Your task to perform on an android device: Search for hotels in New York Image 0: 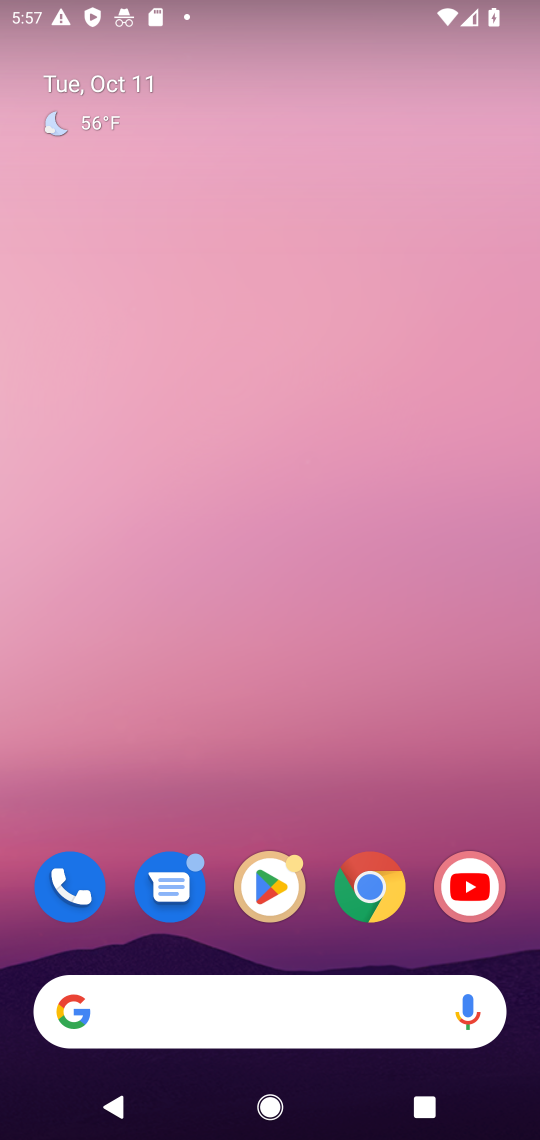
Step 0: click (271, 1004)
Your task to perform on an android device: Search for hotels in New York Image 1: 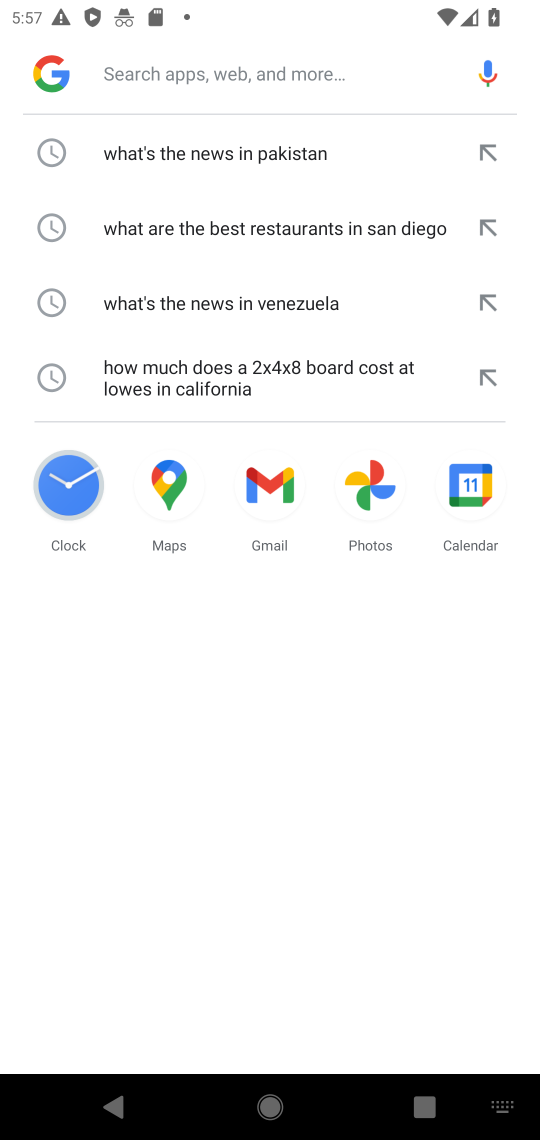
Step 1: type "Search for hotels in New York"
Your task to perform on an android device: Search for hotels in New York Image 2: 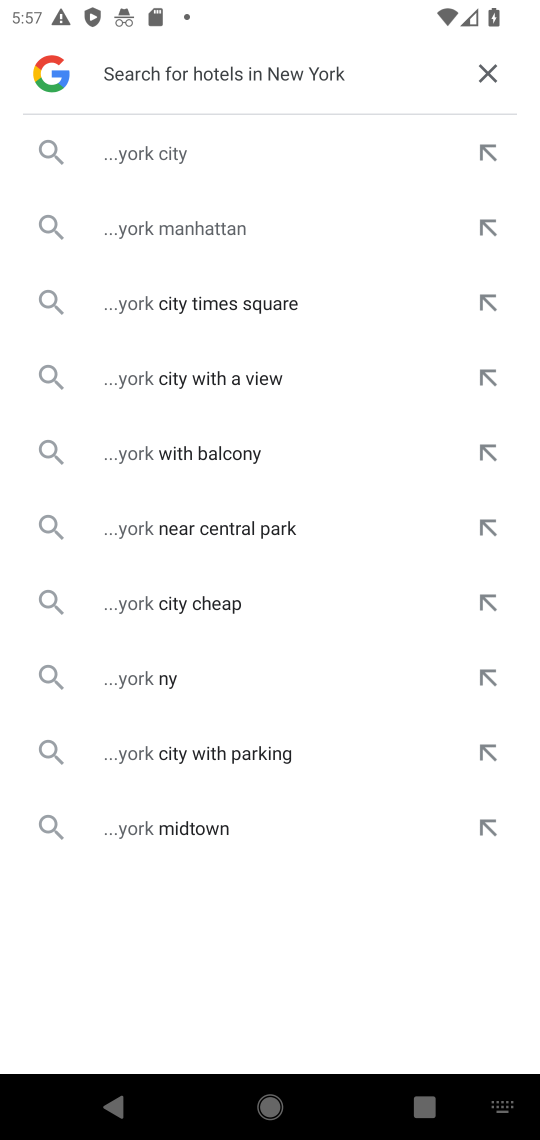
Step 2: click (180, 159)
Your task to perform on an android device: Search for hotels in New York Image 3: 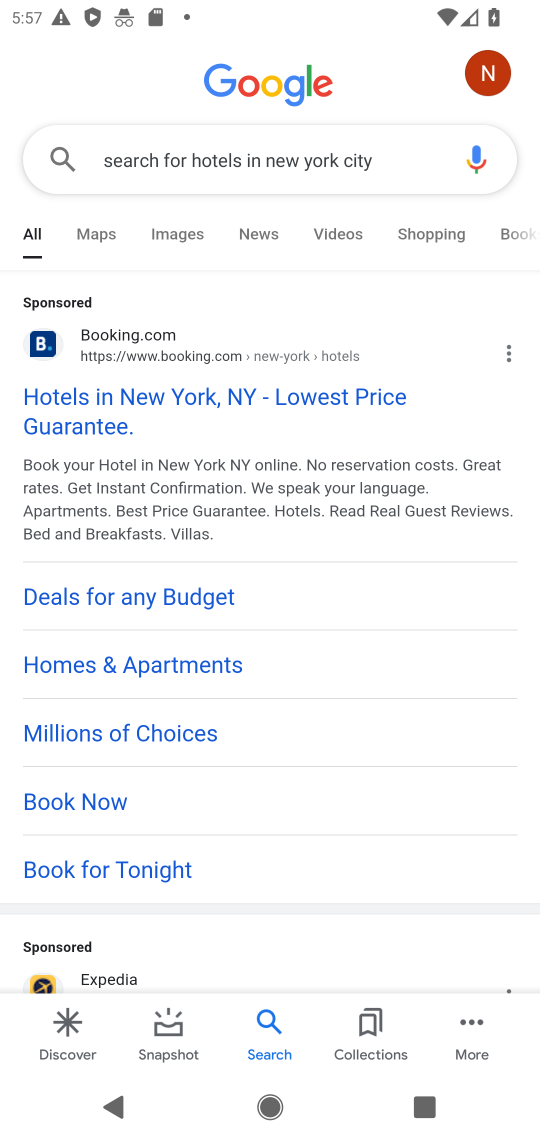
Step 3: task complete